Your task to perform on an android device: Open maps Image 0: 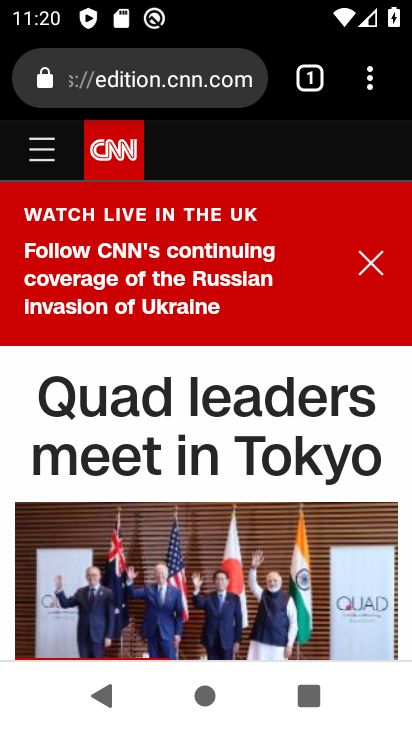
Step 0: press home button
Your task to perform on an android device: Open maps Image 1: 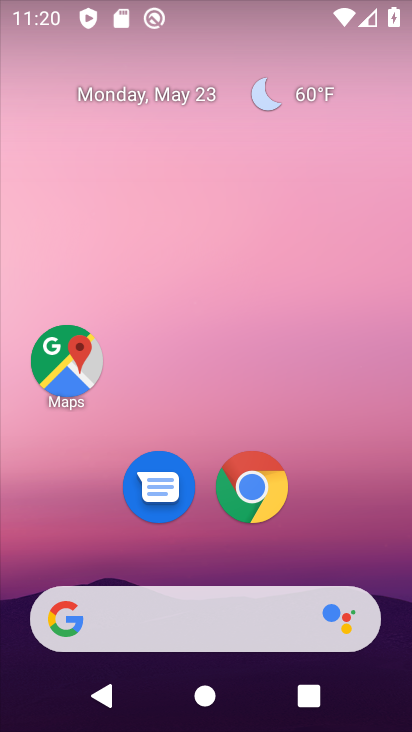
Step 1: click (71, 363)
Your task to perform on an android device: Open maps Image 2: 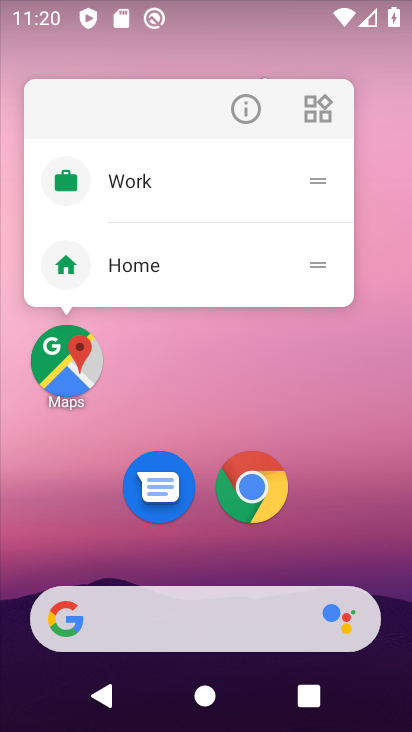
Step 2: click (81, 398)
Your task to perform on an android device: Open maps Image 3: 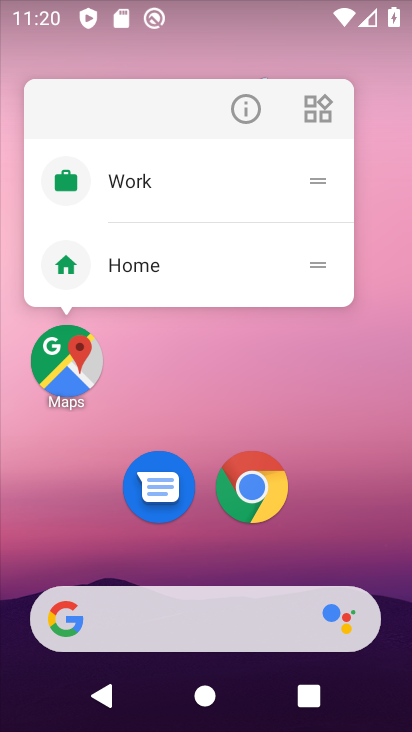
Step 3: click (93, 380)
Your task to perform on an android device: Open maps Image 4: 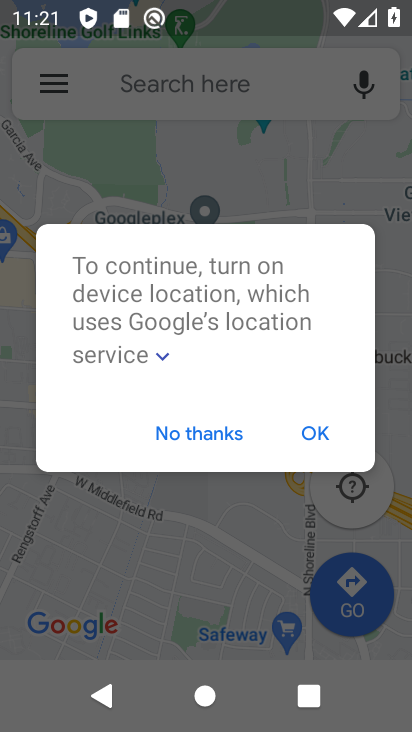
Step 4: click (299, 434)
Your task to perform on an android device: Open maps Image 5: 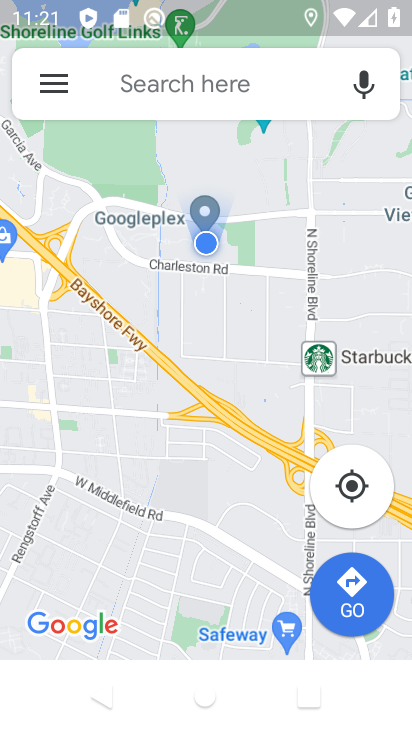
Step 5: task complete